Your task to perform on an android device: add a contact in the contacts app Image 0: 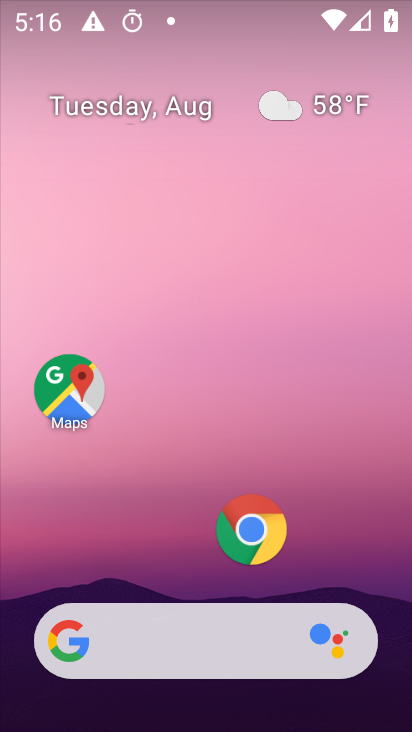
Step 0: drag from (170, 561) to (227, 207)
Your task to perform on an android device: add a contact in the contacts app Image 1: 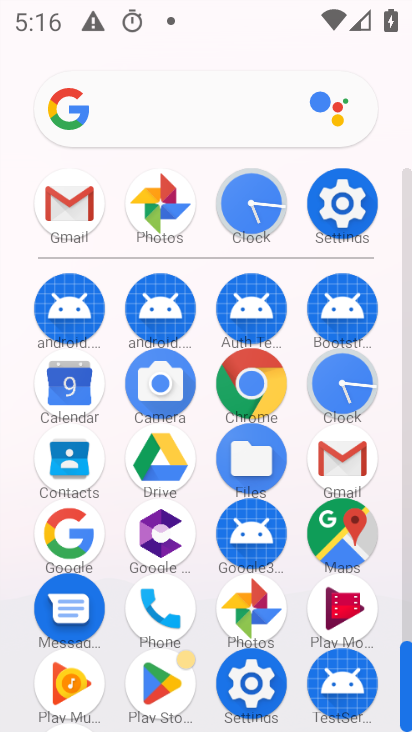
Step 1: click (64, 470)
Your task to perform on an android device: add a contact in the contacts app Image 2: 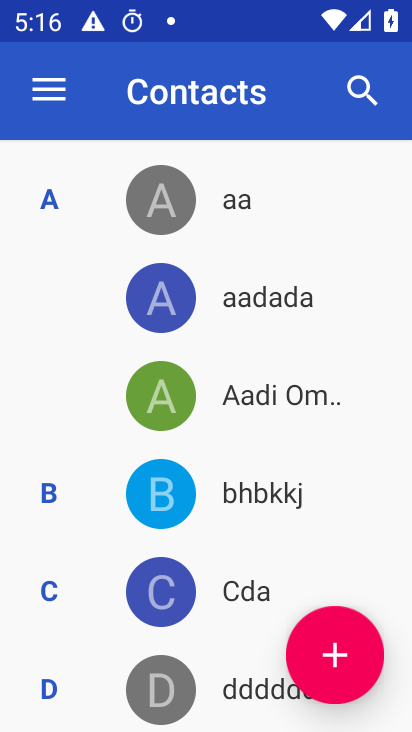
Step 2: click (353, 645)
Your task to perform on an android device: add a contact in the contacts app Image 3: 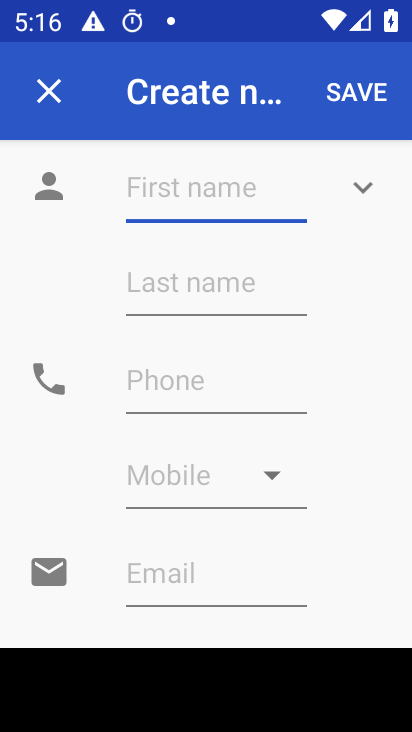
Step 3: type "fhfhfhh"
Your task to perform on an android device: add a contact in the contacts app Image 4: 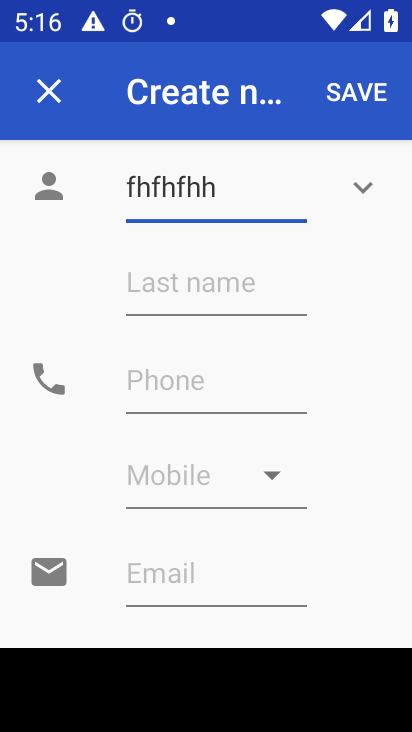
Step 4: click (189, 387)
Your task to perform on an android device: add a contact in the contacts app Image 5: 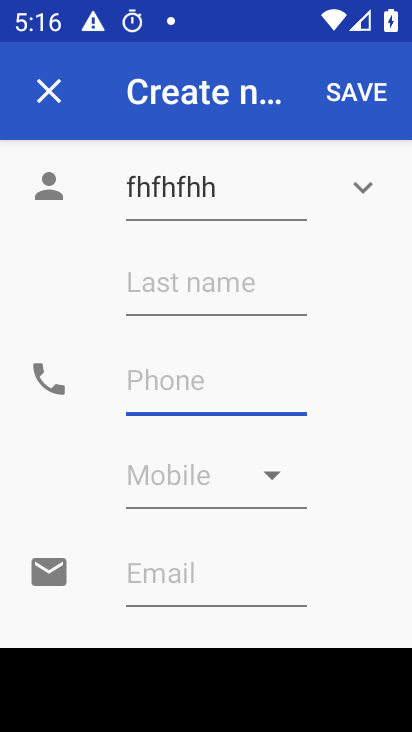
Step 5: type "68558567575"
Your task to perform on an android device: add a contact in the contacts app Image 6: 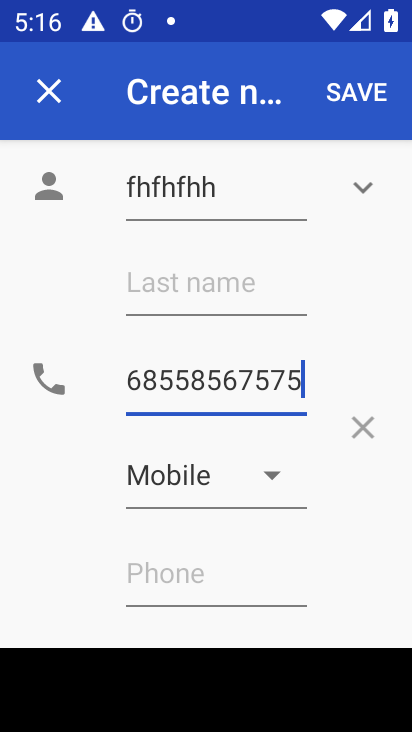
Step 6: type ""
Your task to perform on an android device: add a contact in the contacts app Image 7: 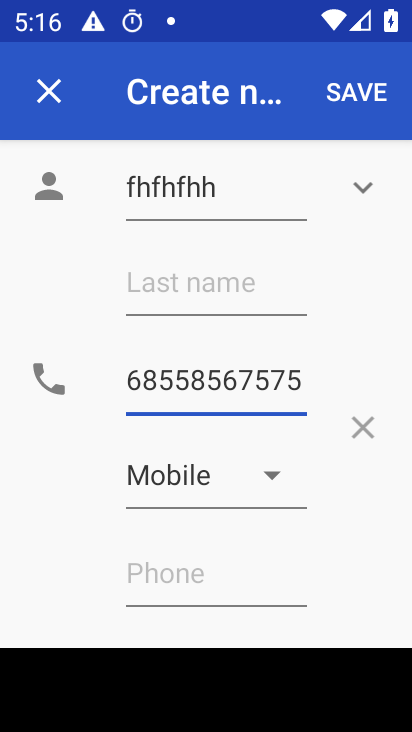
Step 7: click (357, 92)
Your task to perform on an android device: add a contact in the contacts app Image 8: 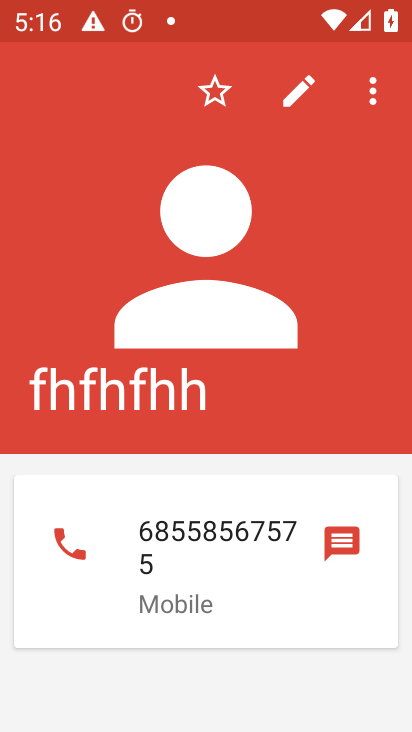
Step 8: task complete